Your task to perform on an android device: change the clock display to show seconds Image 0: 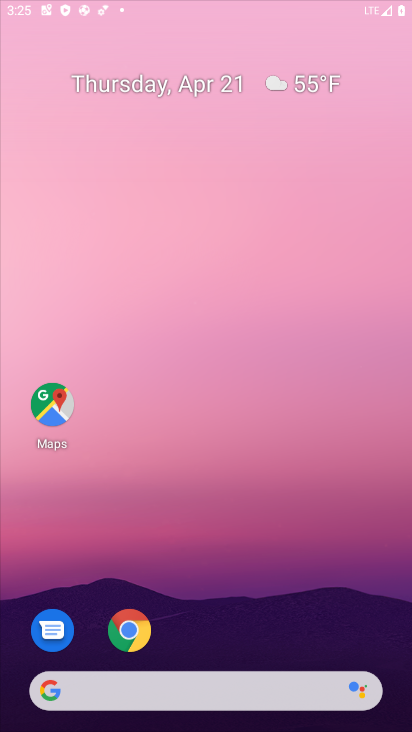
Step 0: drag from (265, 428) to (338, 110)
Your task to perform on an android device: change the clock display to show seconds Image 1: 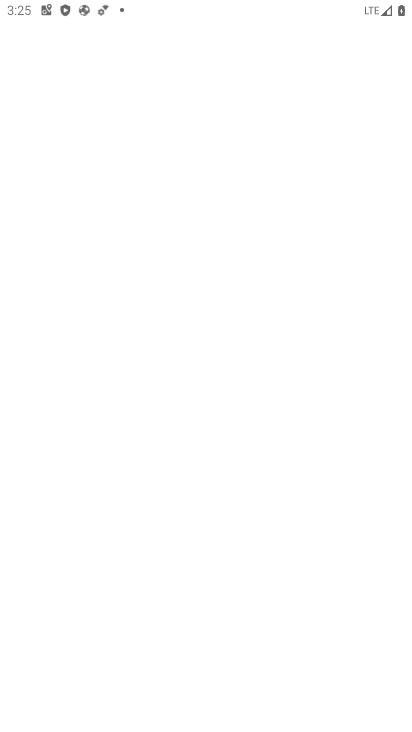
Step 1: press back button
Your task to perform on an android device: change the clock display to show seconds Image 2: 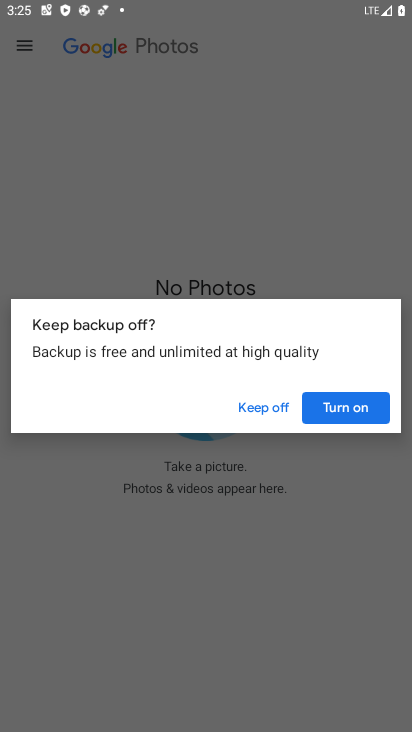
Step 2: press back button
Your task to perform on an android device: change the clock display to show seconds Image 3: 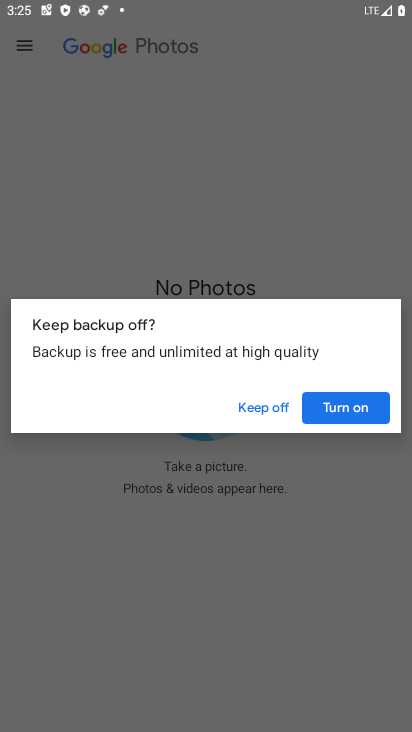
Step 3: press back button
Your task to perform on an android device: change the clock display to show seconds Image 4: 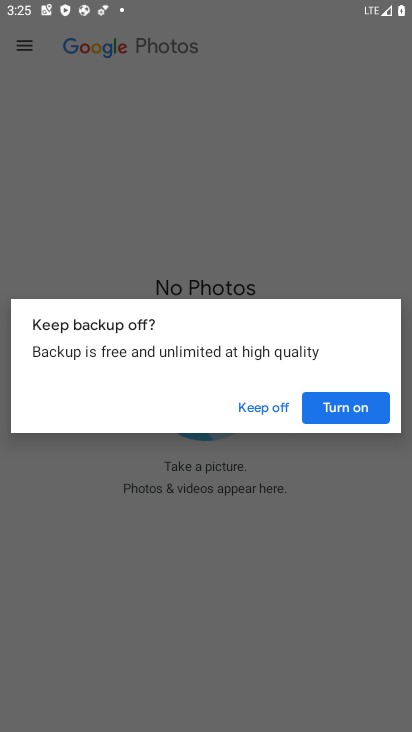
Step 4: press home button
Your task to perform on an android device: change the clock display to show seconds Image 5: 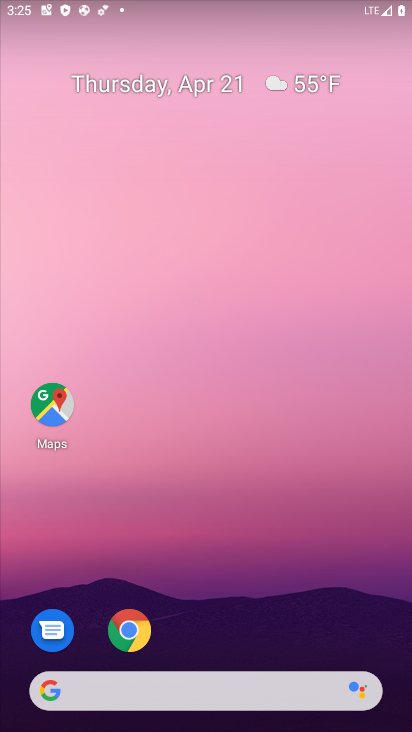
Step 5: drag from (260, 476) to (343, 21)
Your task to perform on an android device: change the clock display to show seconds Image 6: 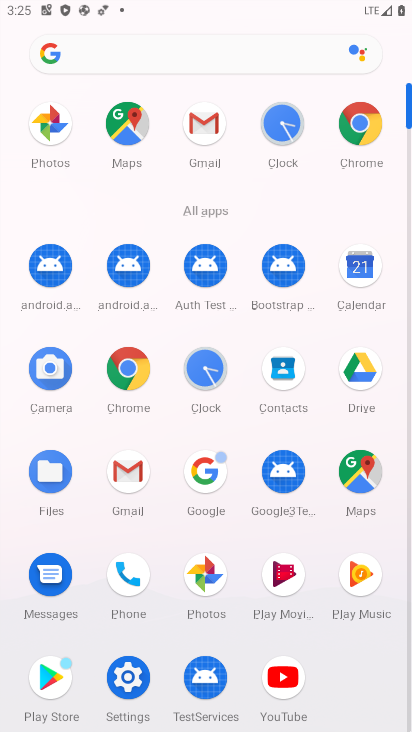
Step 6: click (205, 373)
Your task to perform on an android device: change the clock display to show seconds Image 7: 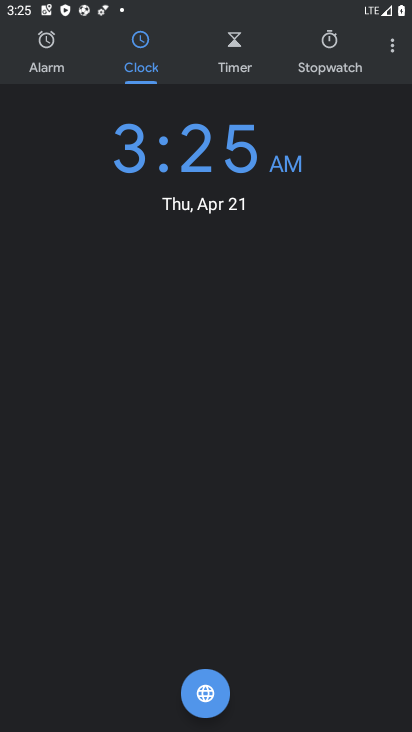
Step 7: drag from (396, 48) to (354, 197)
Your task to perform on an android device: change the clock display to show seconds Image 8: 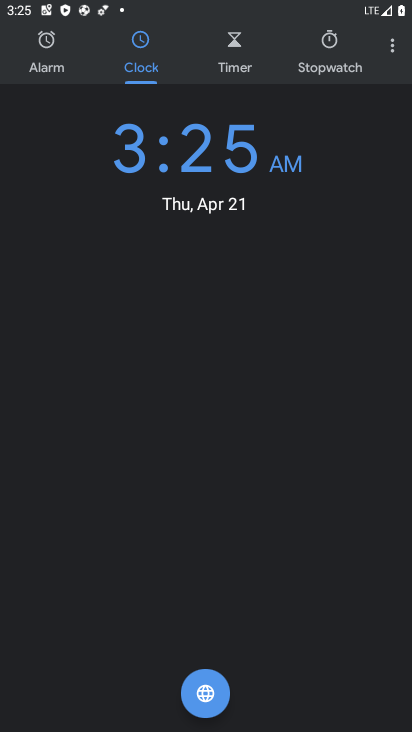
Step 8: click (379, 57)
Your task to perform on an android device: change the clock display to show seconds Image 9: 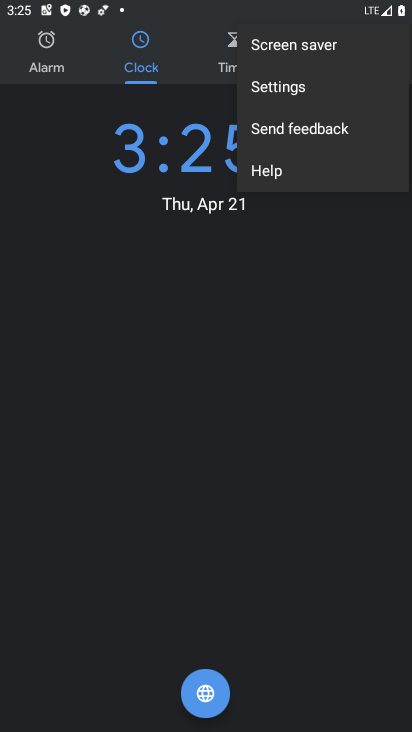
Step 9: click (308, 90)
Your task to perform on an android device: change the clock display to show seconds Image 10: 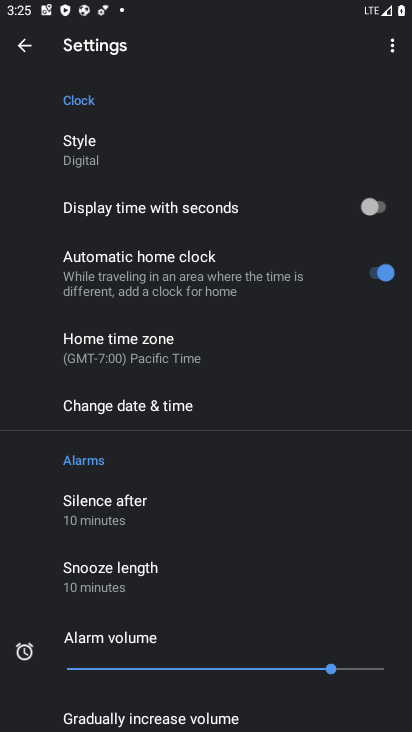
Step 10: click (376, 208)
Your task to perform on an android device: change the clock display to show seconds Image 11: 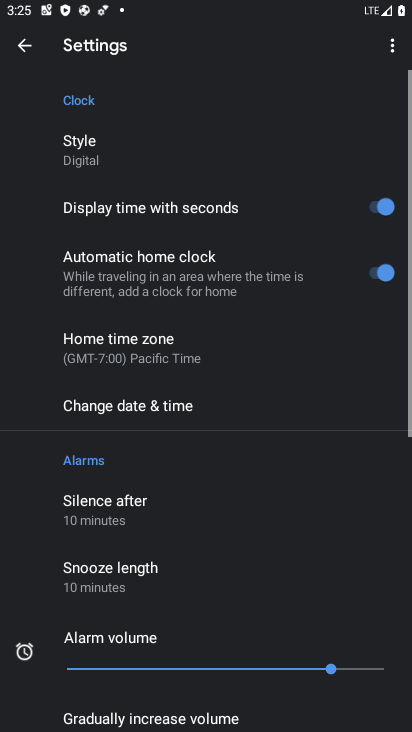
Step 11: task complete